Your task to perform on an android device: Go to eBay Image 0: 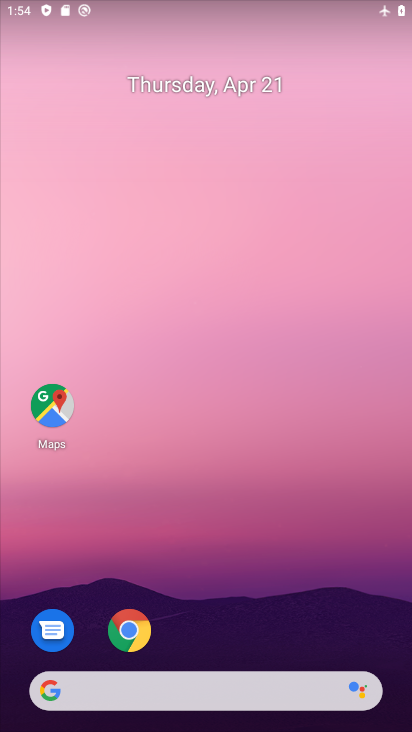
Step 0: click (124, 635)
Your task to perform on an android device: Go to eBay Image 1: 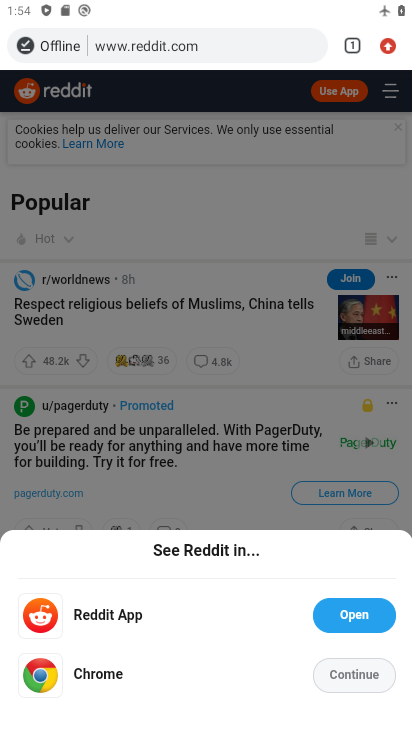
Step 1: click (179, 44)
Your task to perform on an android device: Go to eBay Image 2: 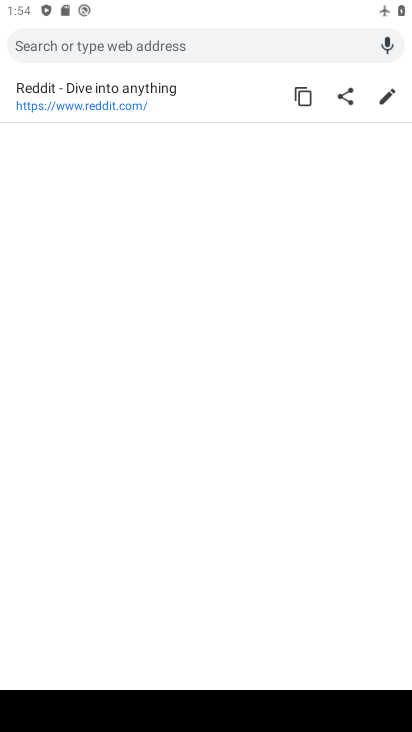
Step 2: type "ebay"
Your task to perform on an android device: Go to eBay Image 3: 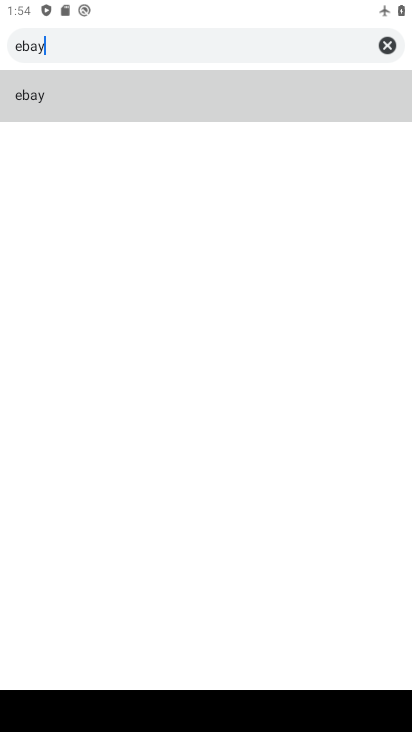
Step 3: click (8, 91)
Your task to perform on an android device: Go to eBay Image 4: 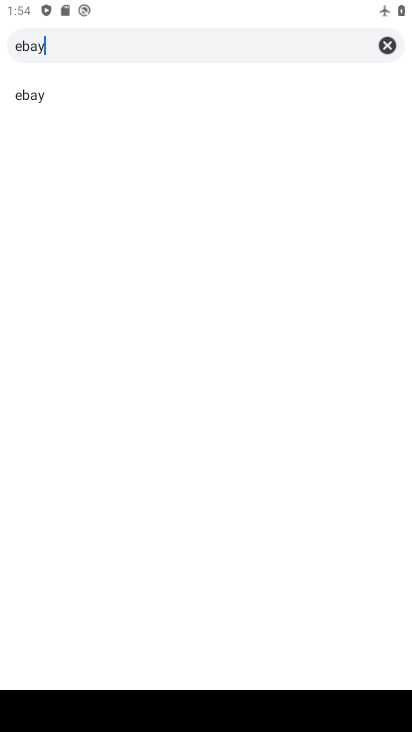
Step 4: click (28, 98)
Your task to perform on an android device: Go to eBay Image 5: 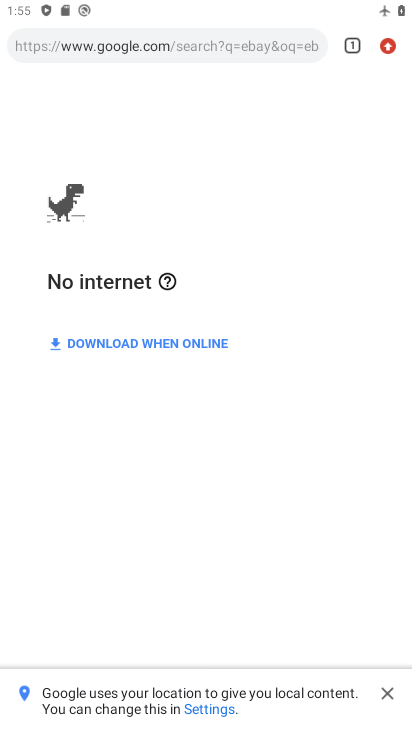
Step 5: task complete